Your task to perform on an android device: turn smart compose on in the gmail app Image 0: 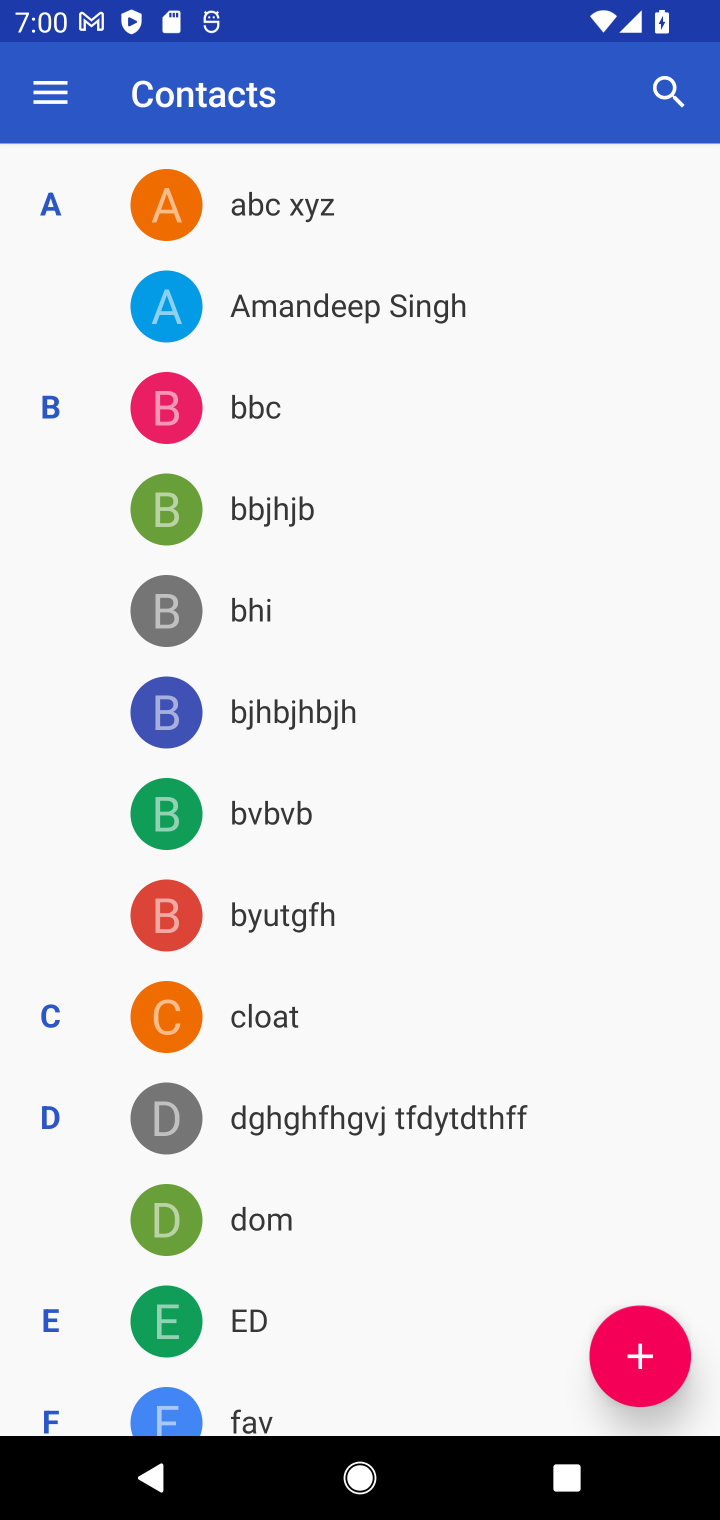
Step 0: press home button
Your task to perform on an android device: turn smart compose on in the gmail app Image 1: 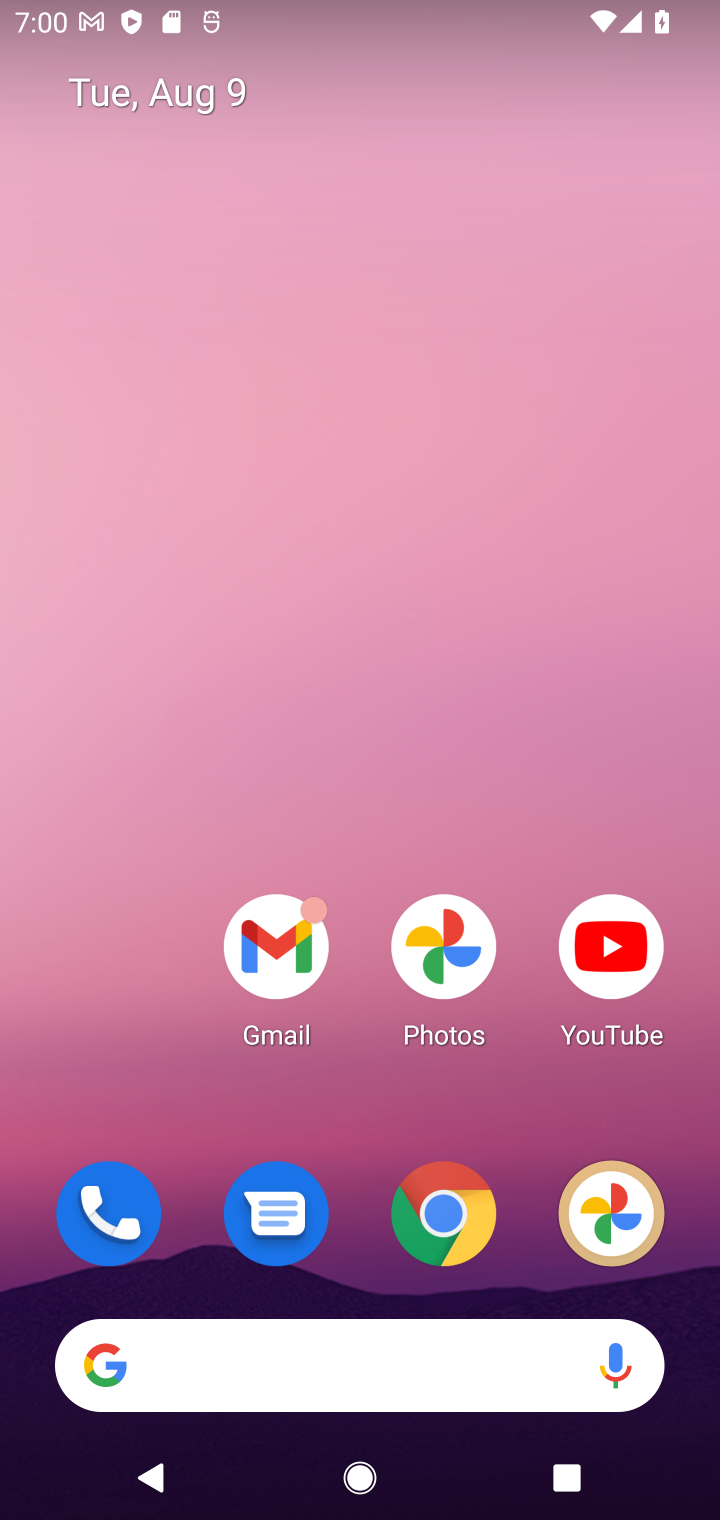
Step 1: click (277, 904)
Your task to perform on an android device: turn smart compose on in the gmail app Image 2: 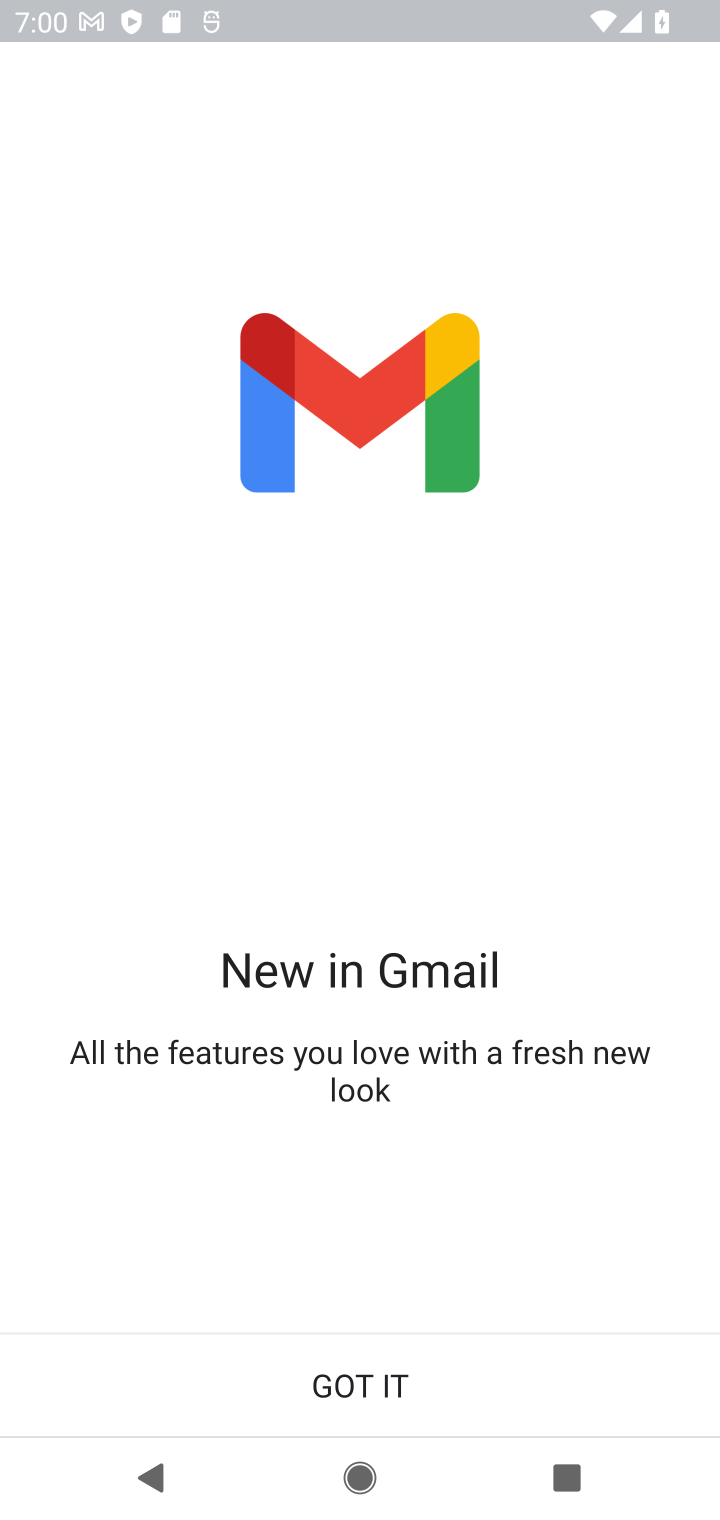
Step 2: click (293, 1376)
Your task to perform on an android device: turn smart compose on in the gmail app Image 3: 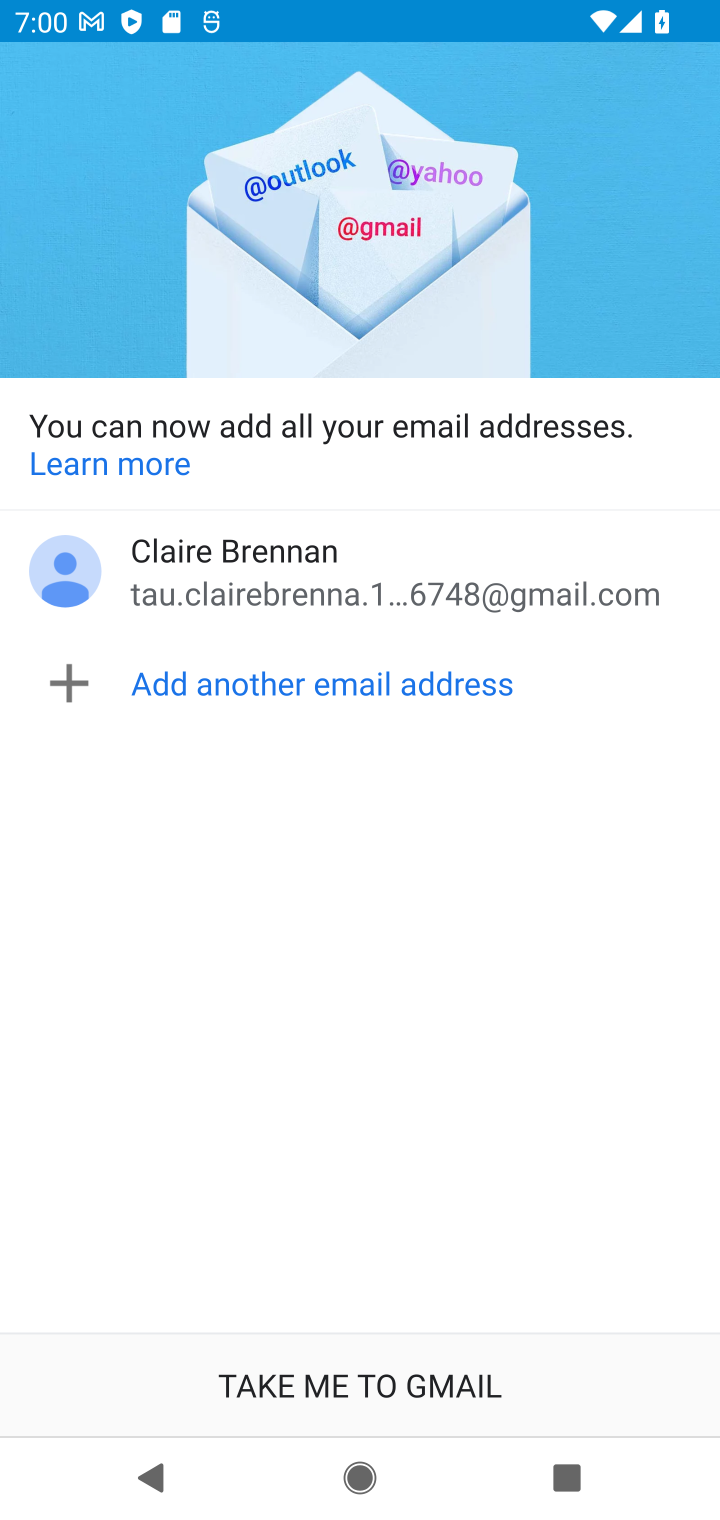
Step 3: click (345, 1360)
Your task to perform on an android device: turn smart compose on in the gmail app Image 4: 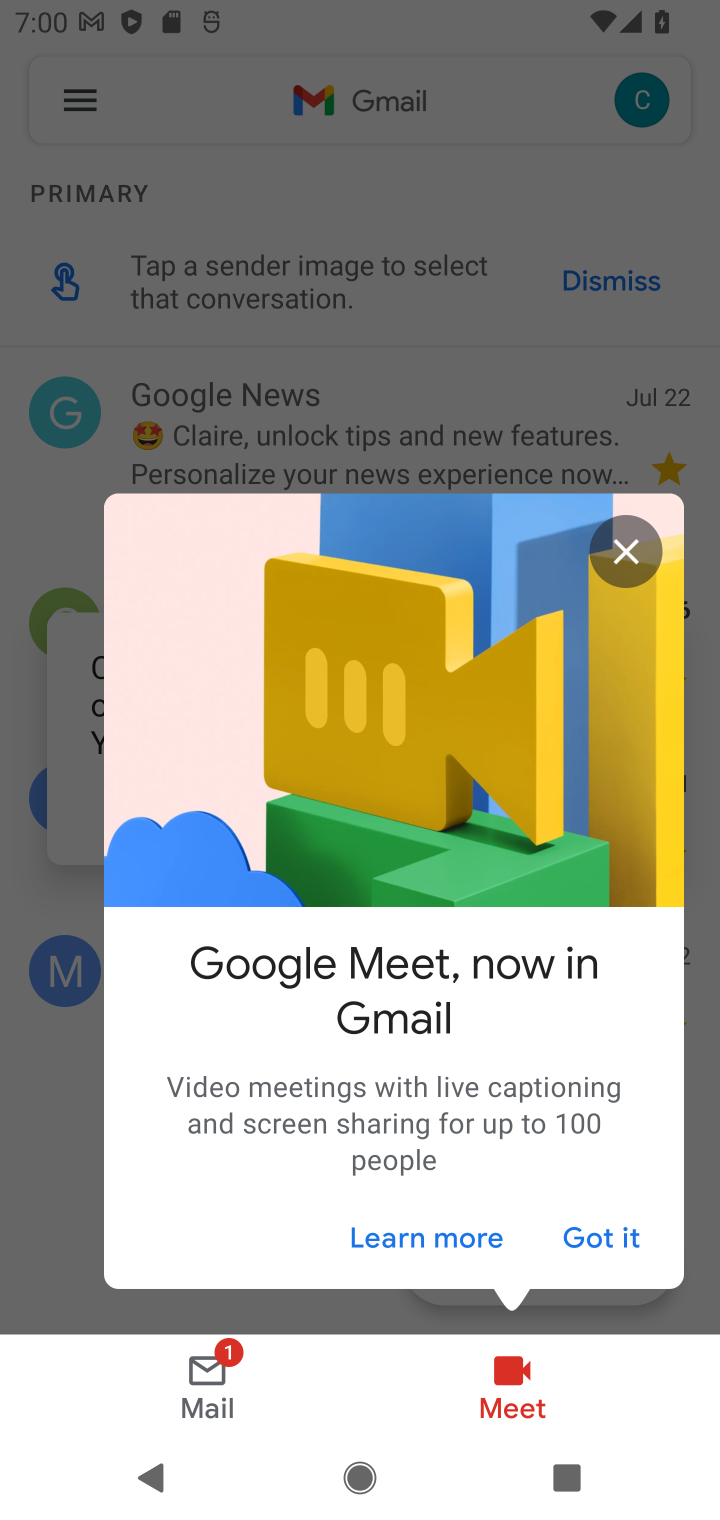
Step 4: click (589, 801)
Your task to perform on an android device: turn smart compose on in the gmail app Image 5: 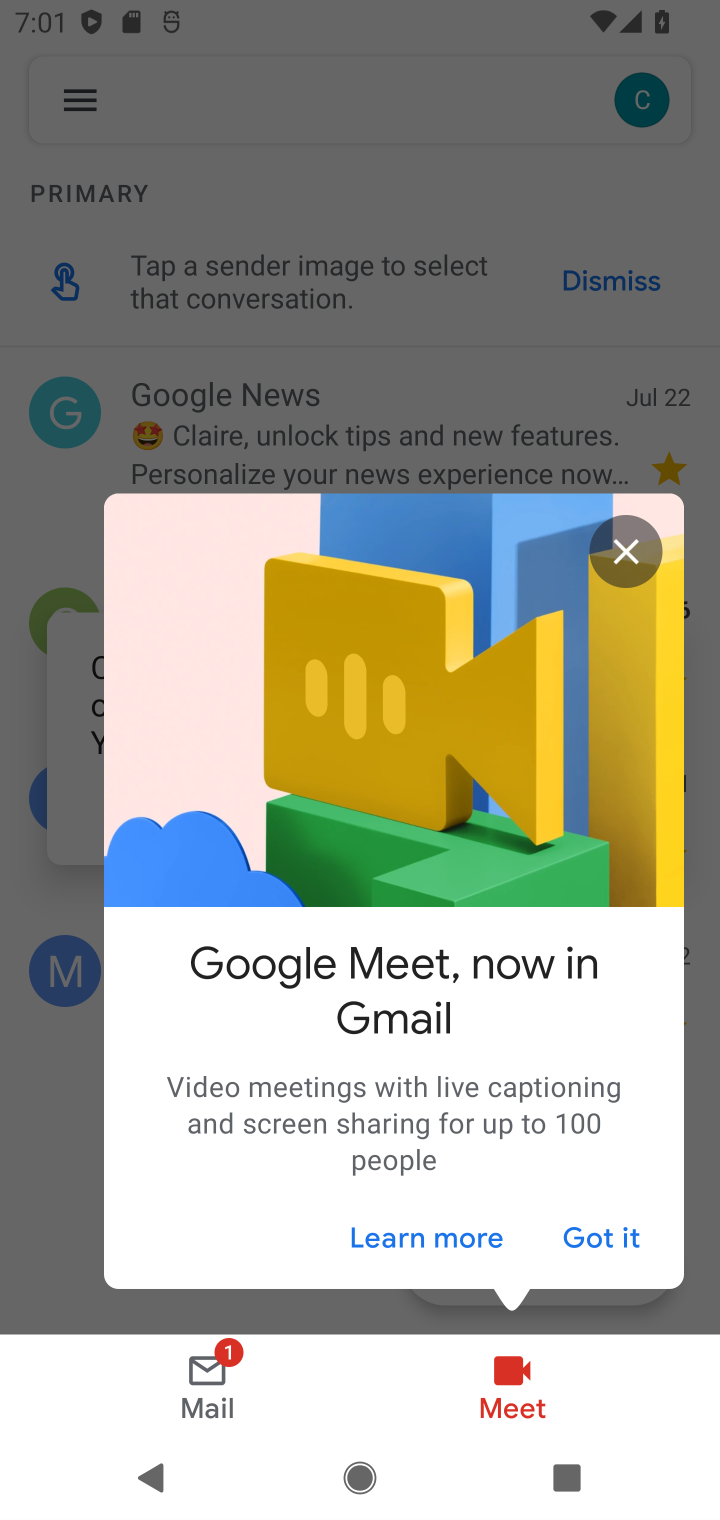
Step 5: click (608, 1232)
Your task to perform on an android device: turn smart compose on in the gmail app Image 6: 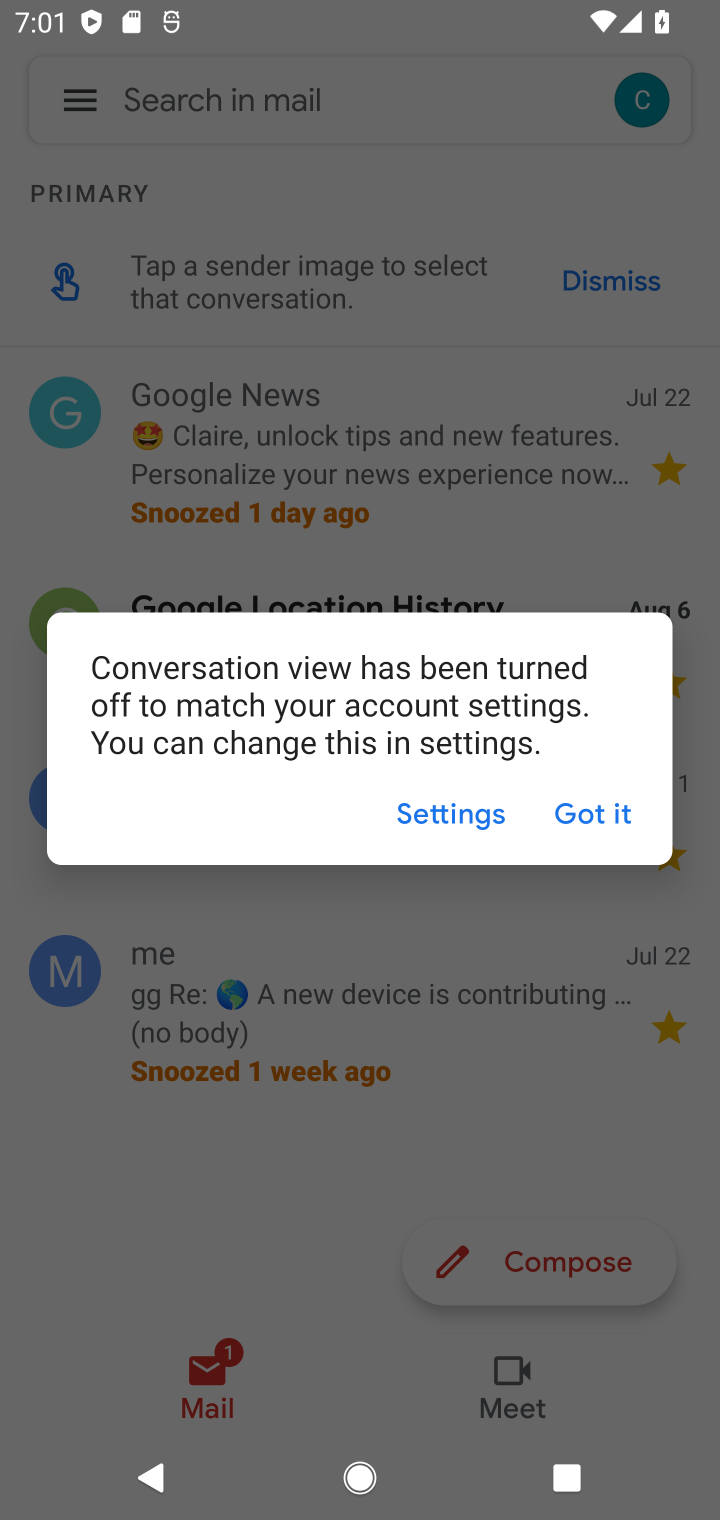
Step 6: click (610, 821)
Your task to perform on an android device: turn smart compose on in the gmail app Image 7: 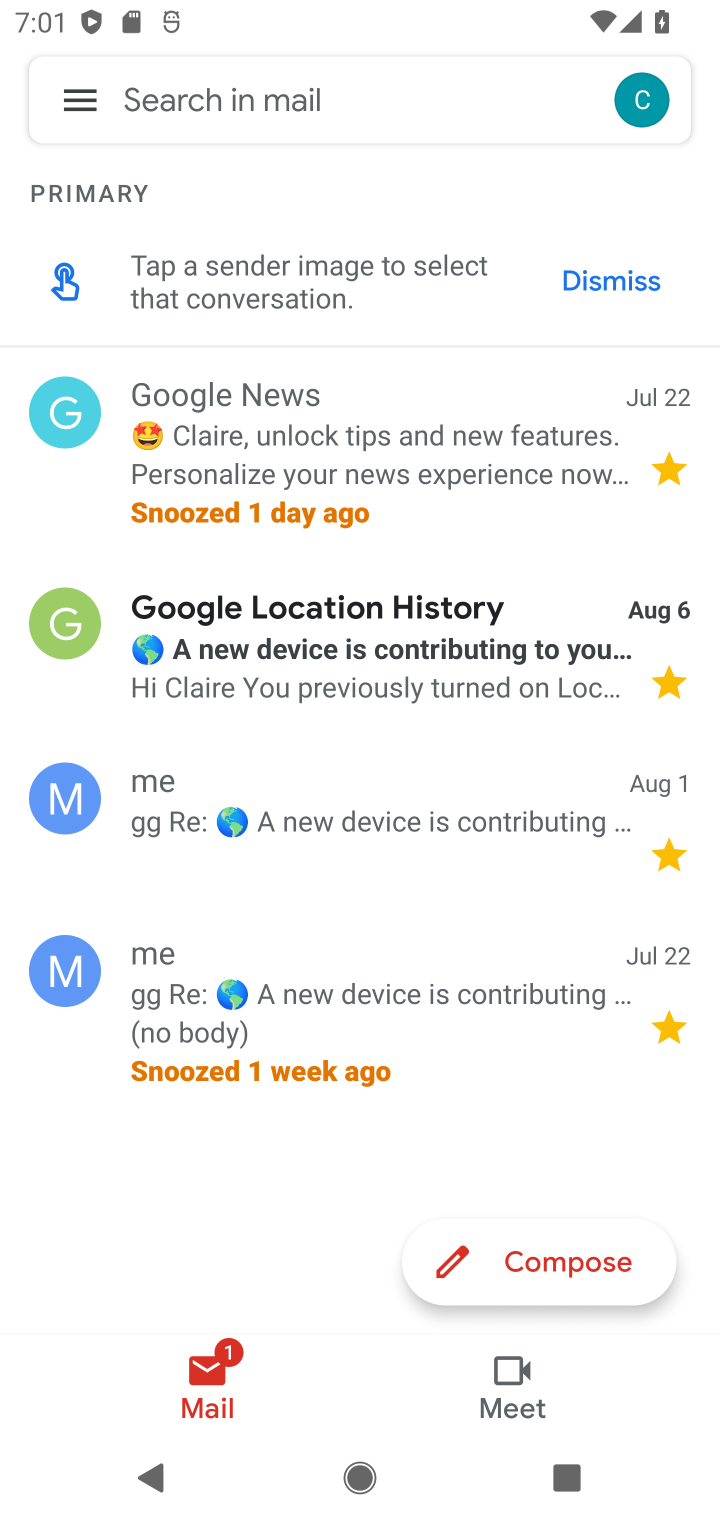
Step 7: click (60, 98)
Your task to perform on an android device: turn smart compose on in the gmail app Image 8: 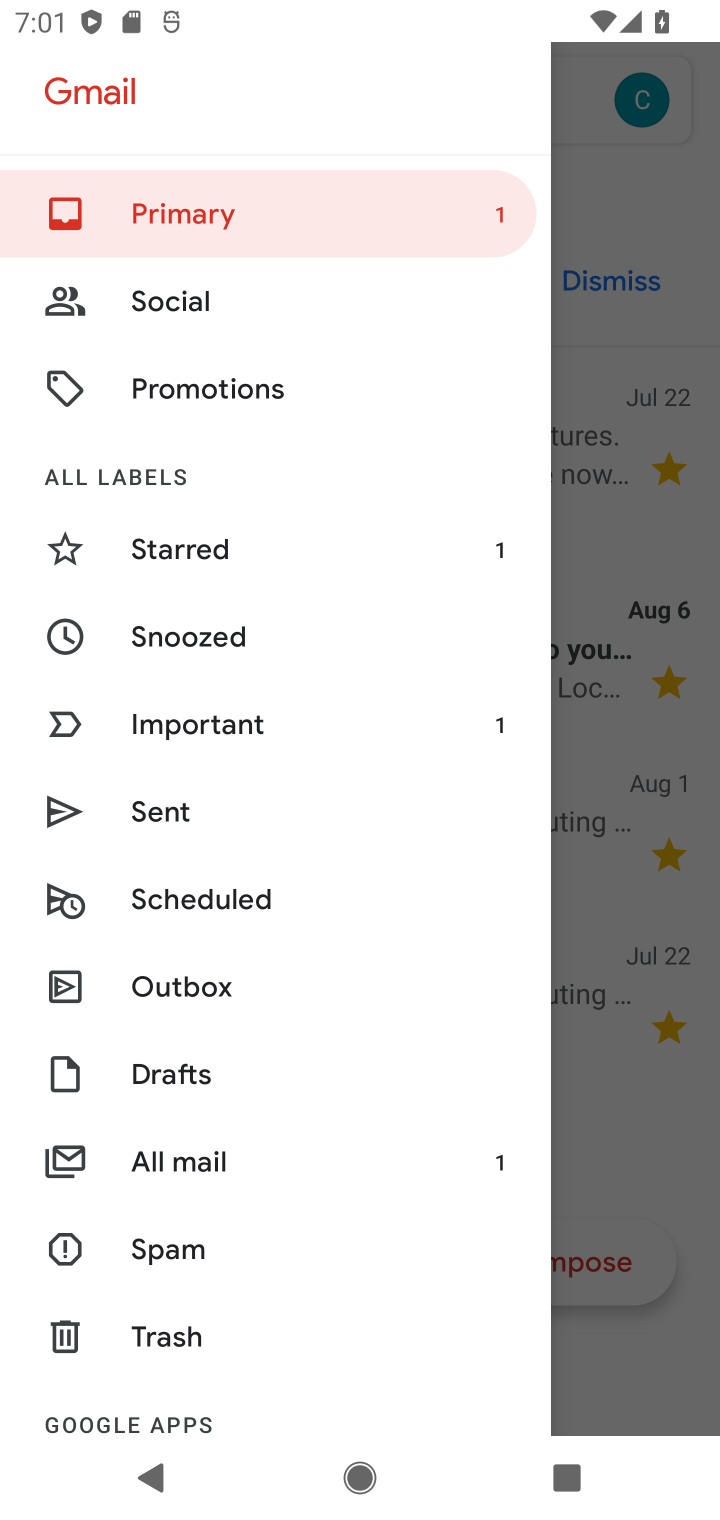
Step 8: drag from (231, 1083) to (179, 277)
Your task to perform on an android device: turn smart compose on in the gmail app Image 9: 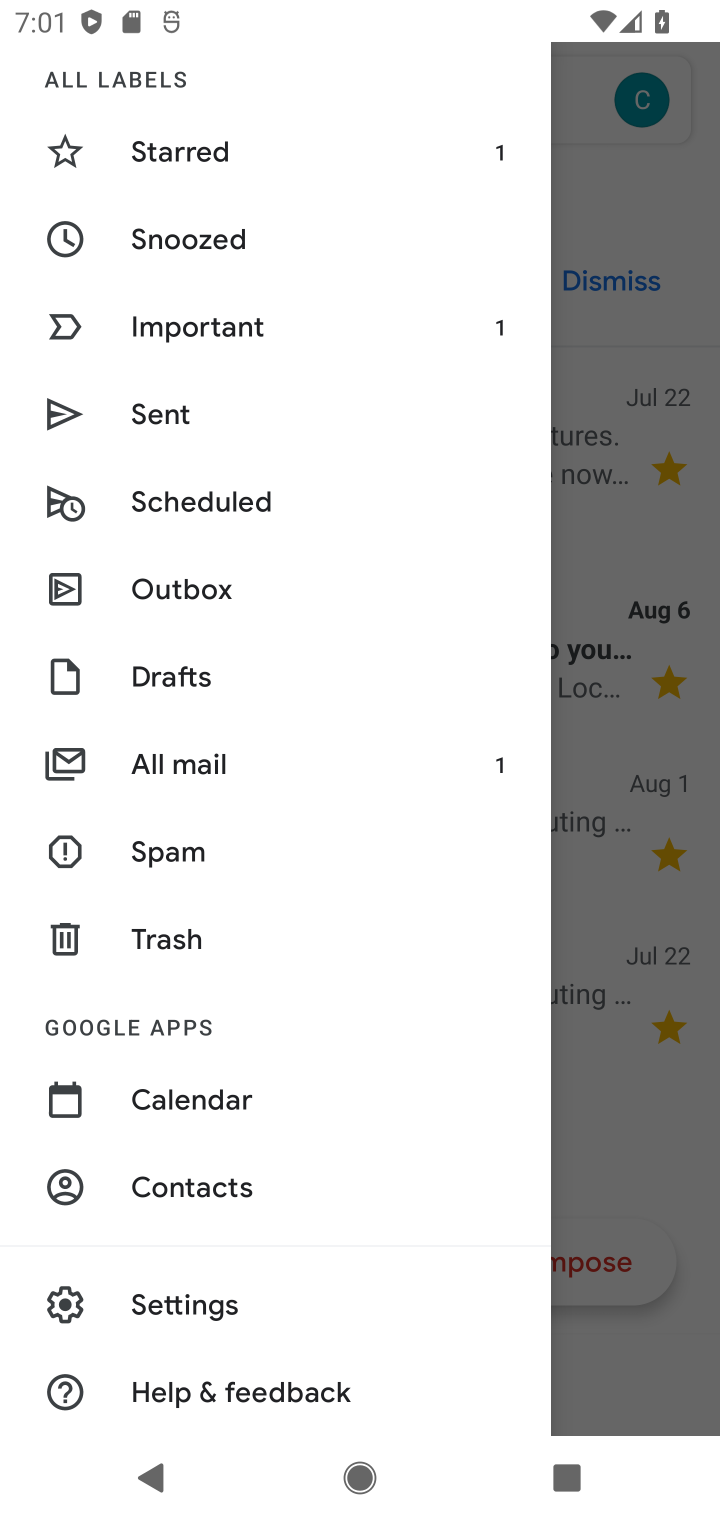
Step 9: click (126, 1299)
Your task to perform on an android device: turn smart compose on in the gmail app Image 10: 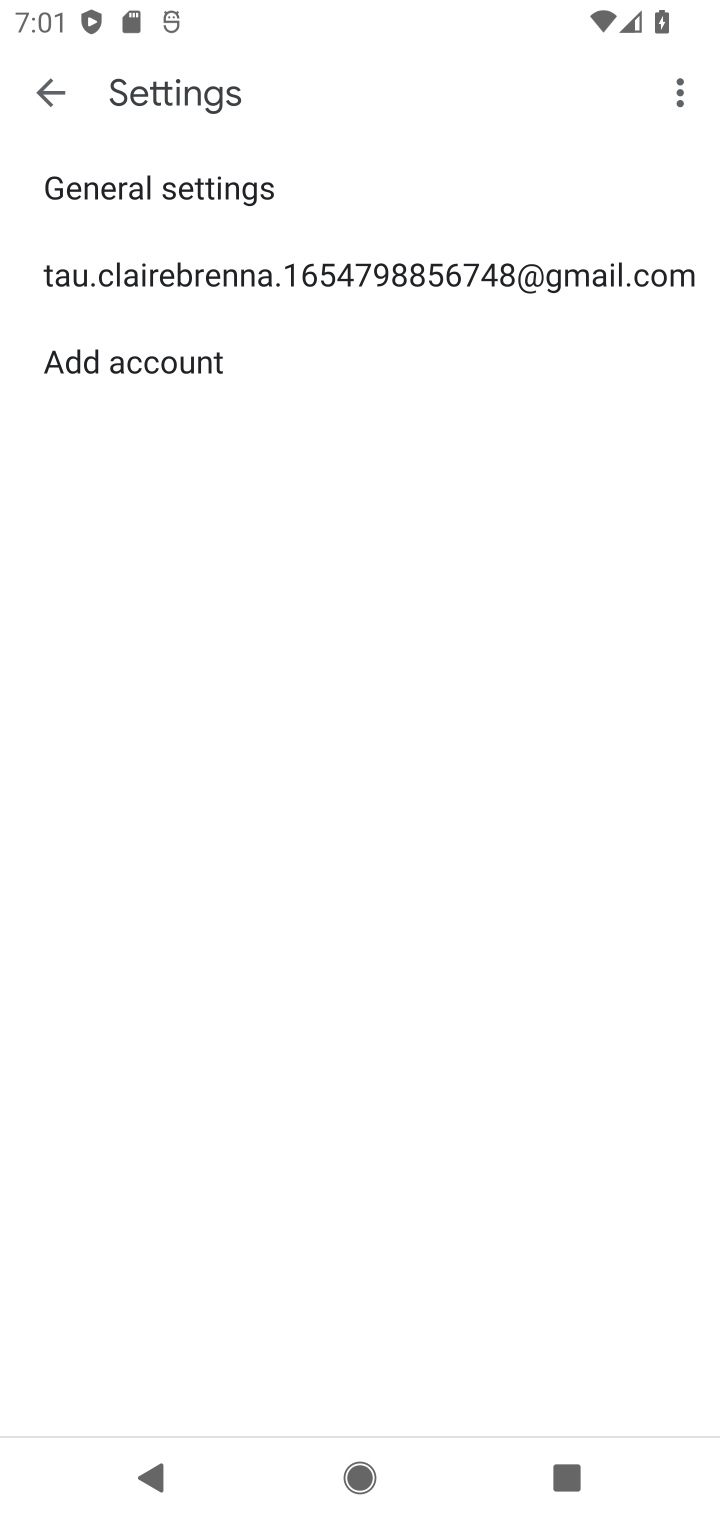
Step 10: click (193, 262)
Your task to perform on an android device: turn smart compose on in the gmail app Image 11: 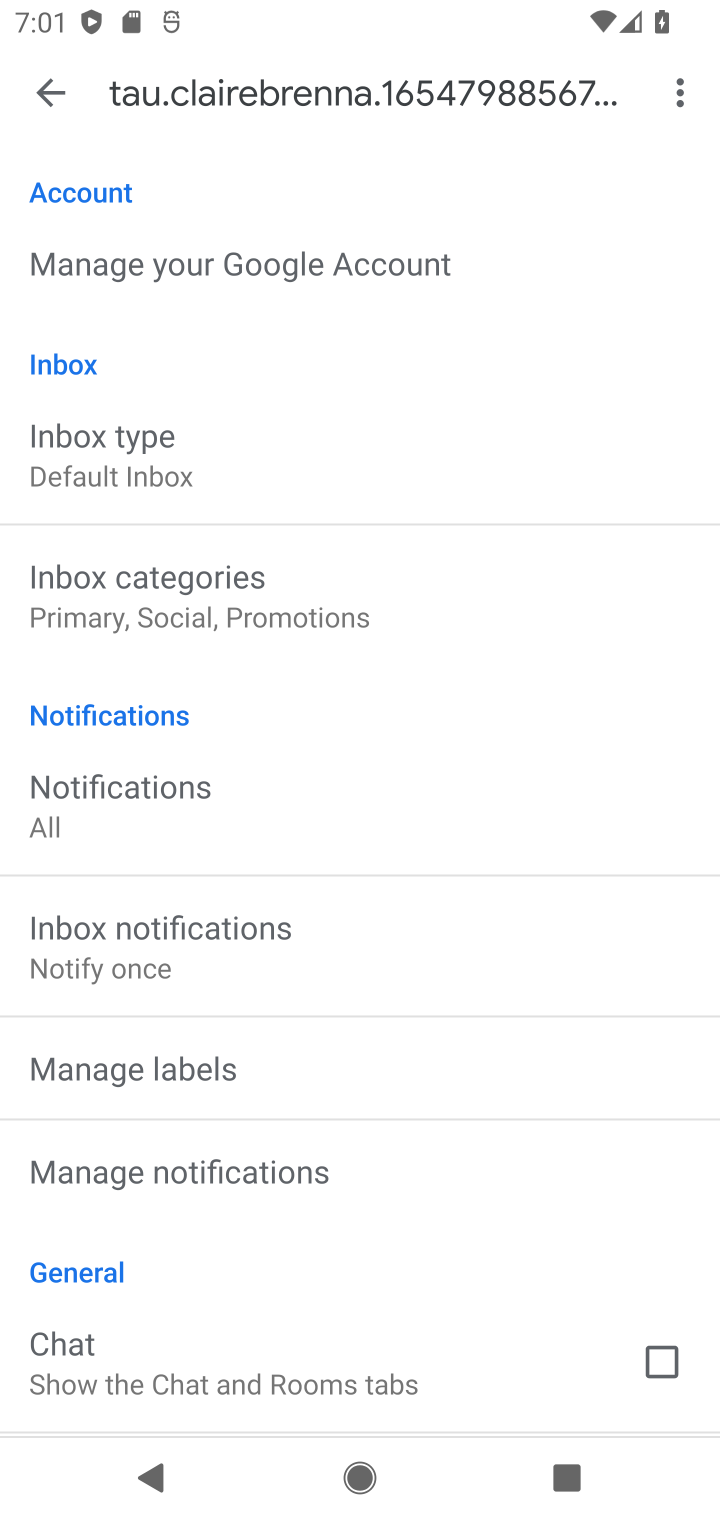
Step 11: task complete